Your task to perform on an android device: open app "Fetch Rewards" (install if not already installed) Image 0: 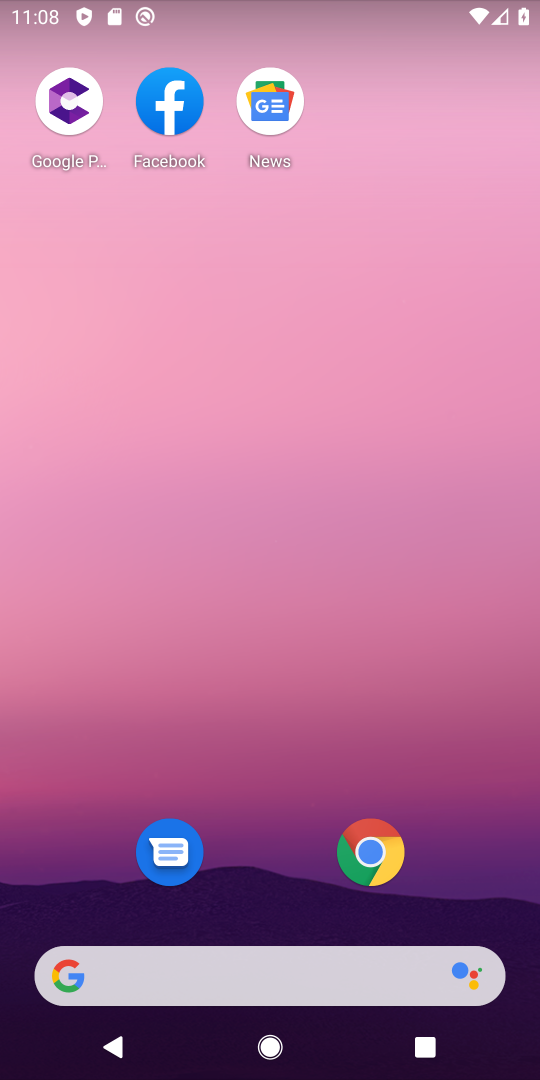
Step 0: drag from (260, 593) to (361, 1)
Your task to perform on an android device: open app "Fetch Rewards" (install if not already installed) Image 1: 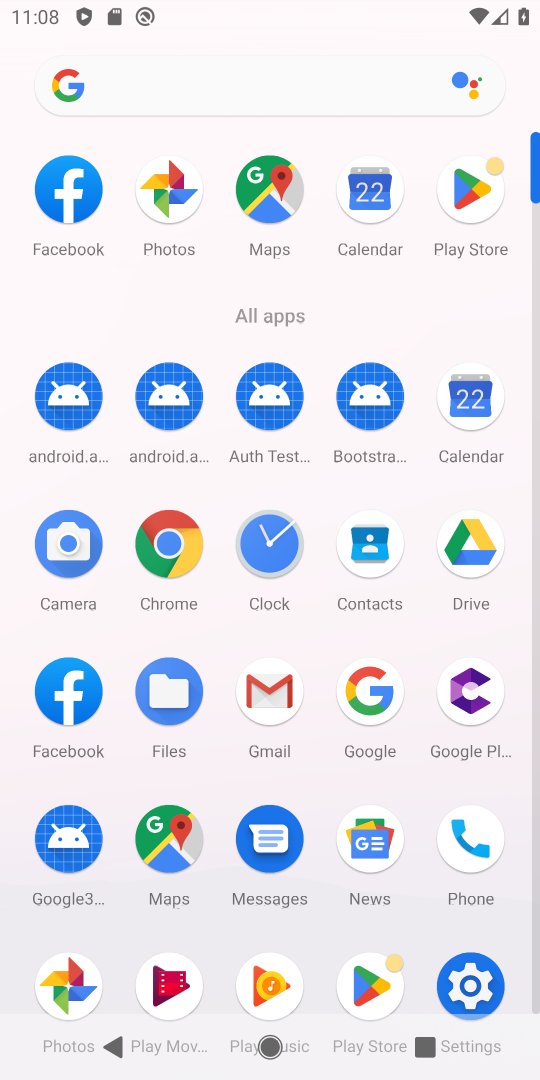
Step 1: click (489, 191)
Your task to perform on an android device: open app "Fetch Rewards" (install if not already installed) Image 2: 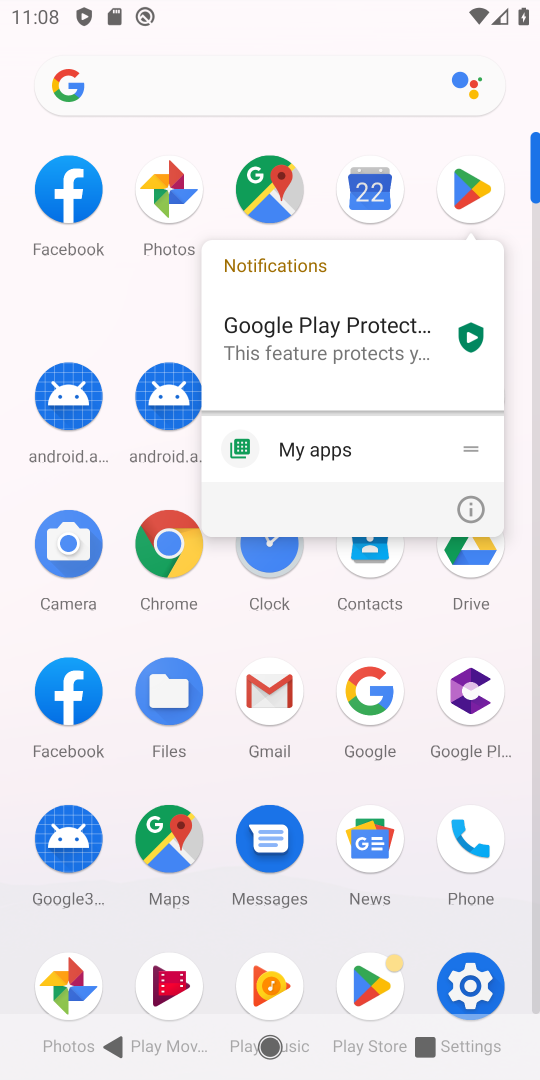
Step 2: click (474, 173)
Your task to perform on an android device: open app "Fetch Rewards" (install if not already installed) Image 3: 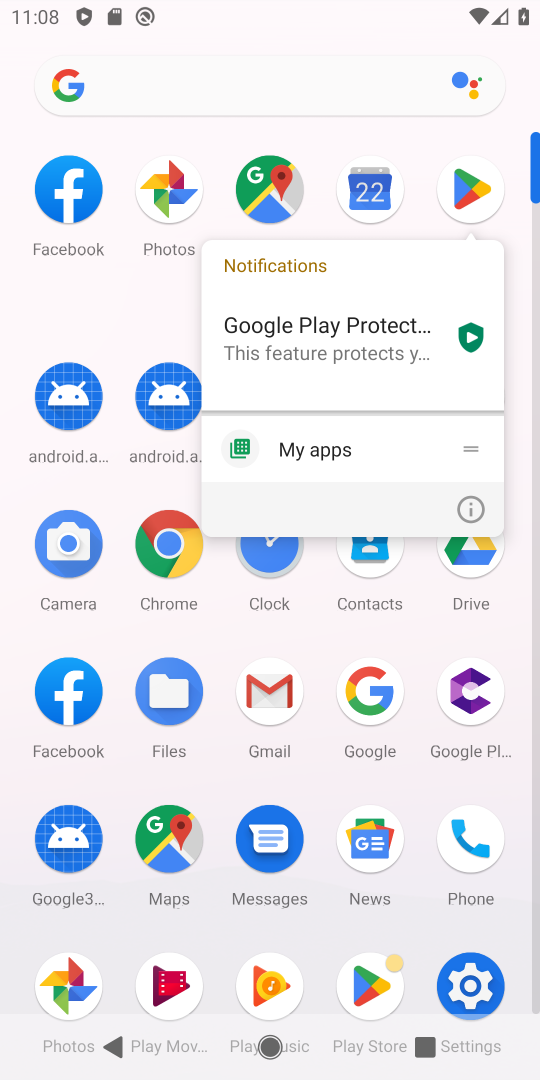
Step 3: click (461, 177)
Your task to perform on an android device: open app "Fetch Rewards" (install if not already installed) Image 4: 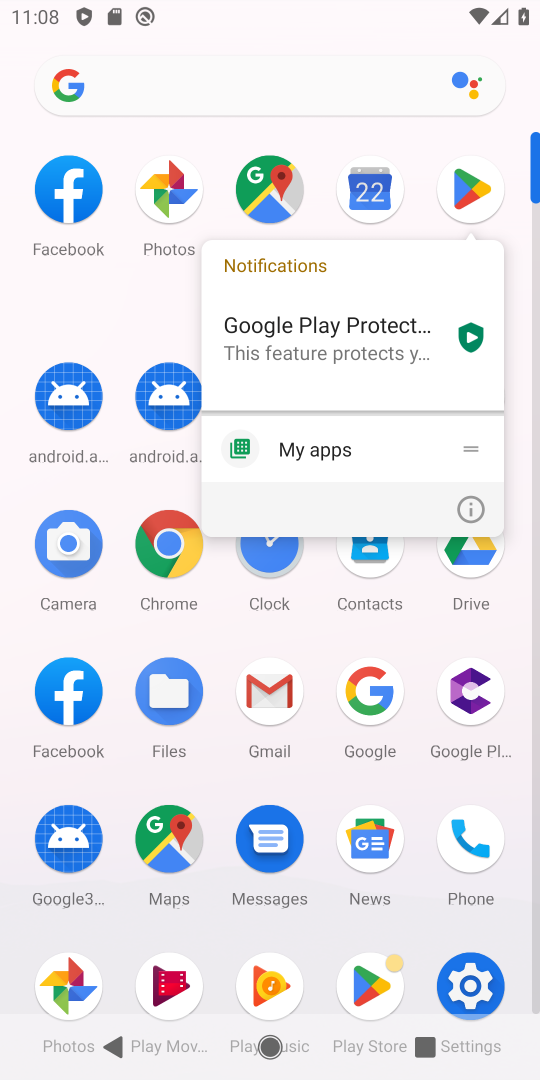
Step 4: click (481, 209)
Your task to perform on an android device: open app "Fetch Rewards" (install if not already installed) Image 5: 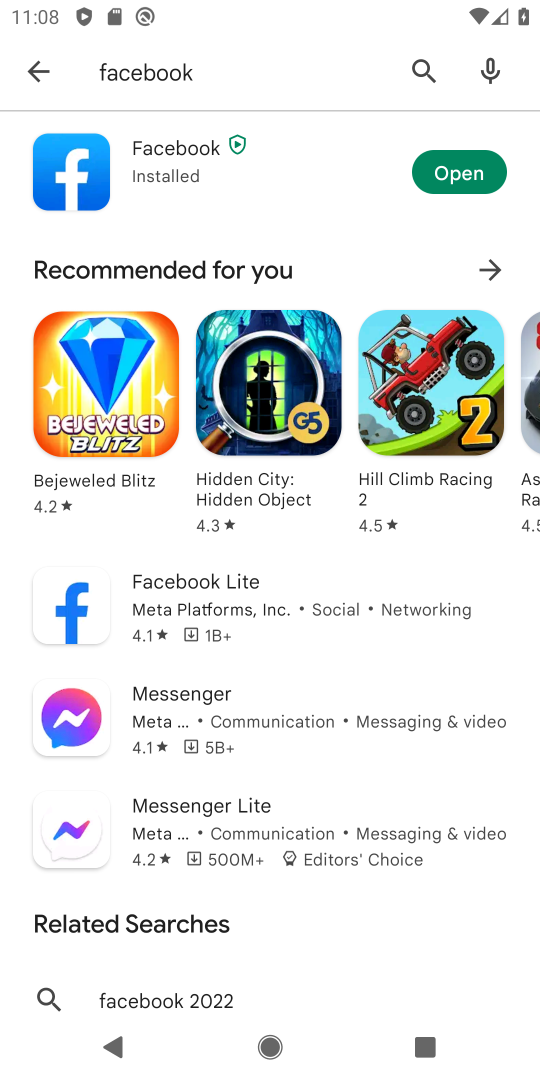
Step 5: click (239, 68)
Your task to perform on an android device: open app "Fetch Rewards" (install if not already installed) Image 6: 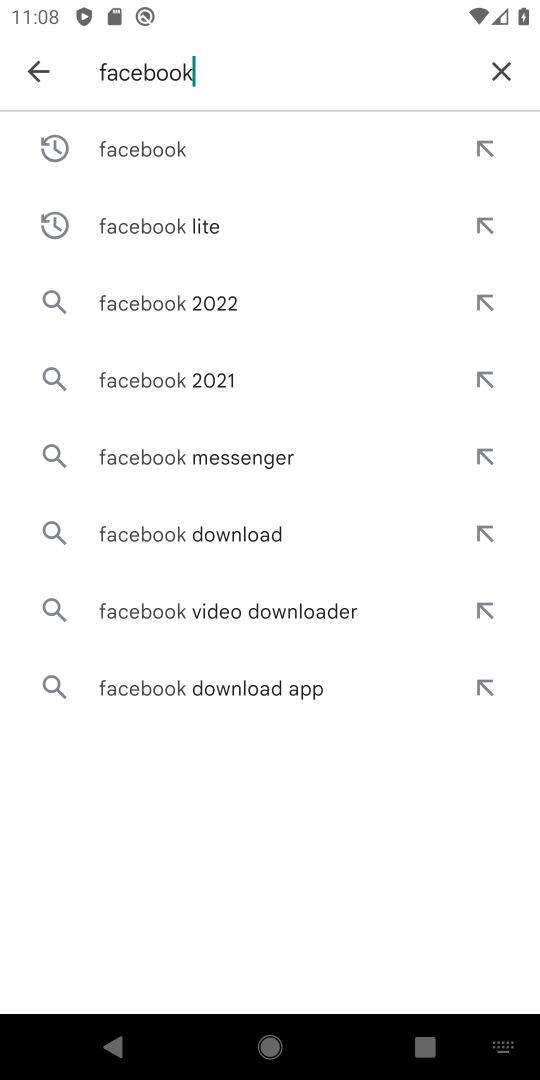
Step 6: click (494, 71)
Your task to perform on an android device: open app "Fetch Rewards" (install if not already installed) Image 7: 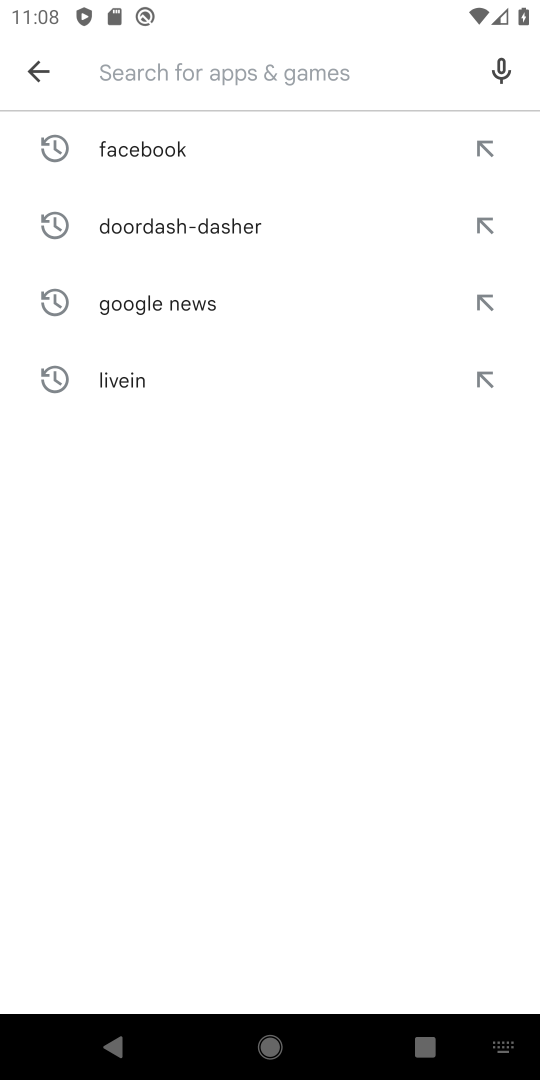
Step 7: type "fetch rewards"
Your task to perform on an android device: open app "Fetch Rewards" (install if not already installed) Image 8: 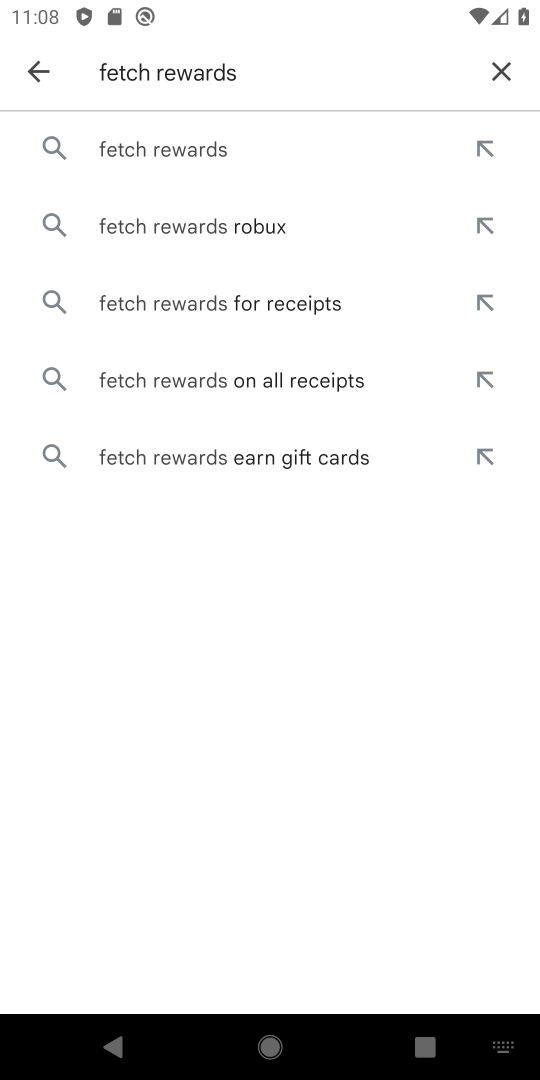
Step 8: click (144, 162)
Your task to perform on an android device: open app "Fetch Rewards" (install if not already installed) Image 9: 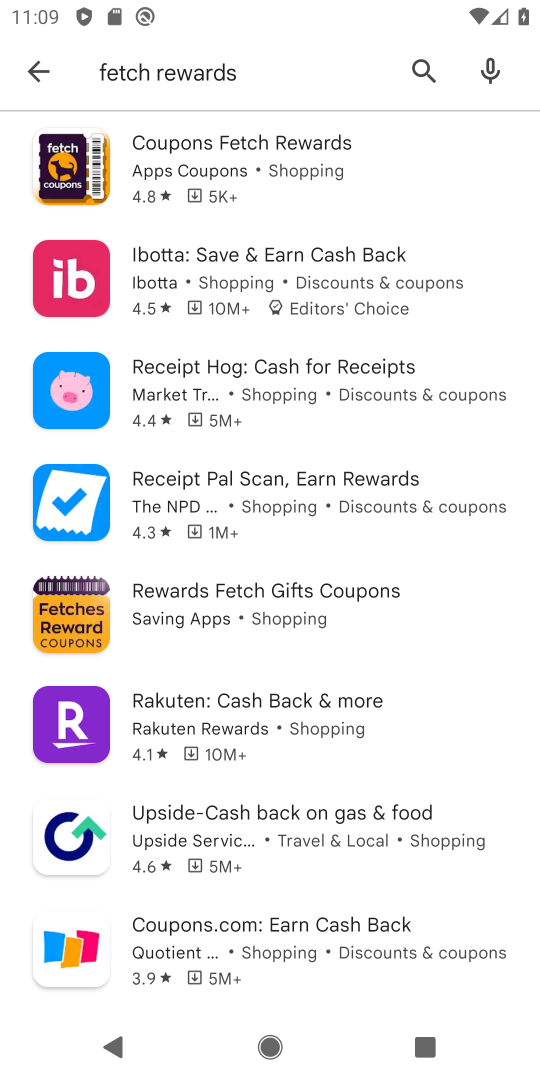
Step 9: task complete